Your task to perform on an android device: turn on wifi Image 0: 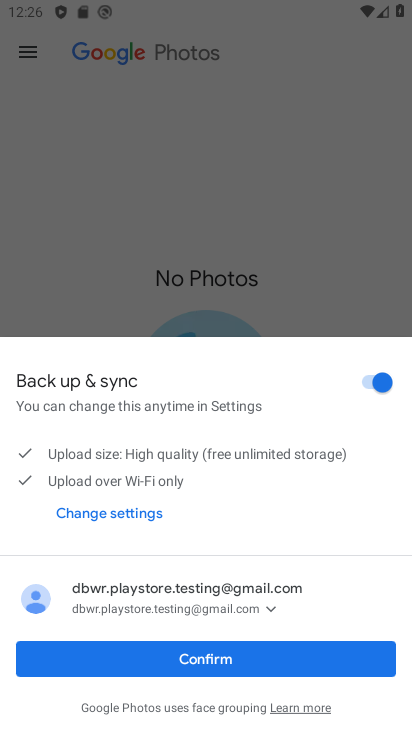
Step 0: click (99, 669)
Your task to perform on an android device: turn on wifi Image 1: 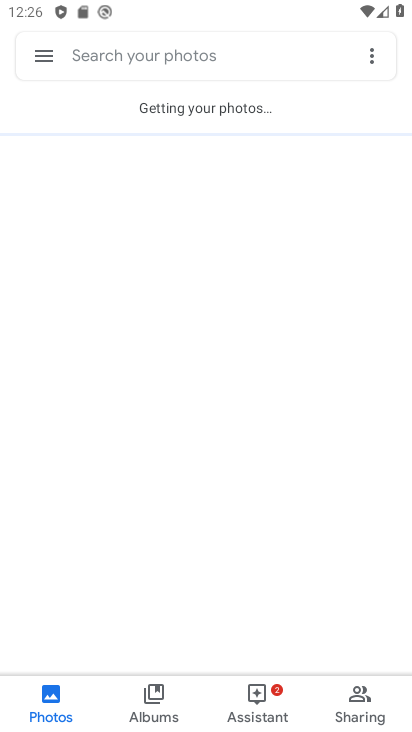
Step 1: press home button
Your task to perform on an android device: turn on wifi Image 2: 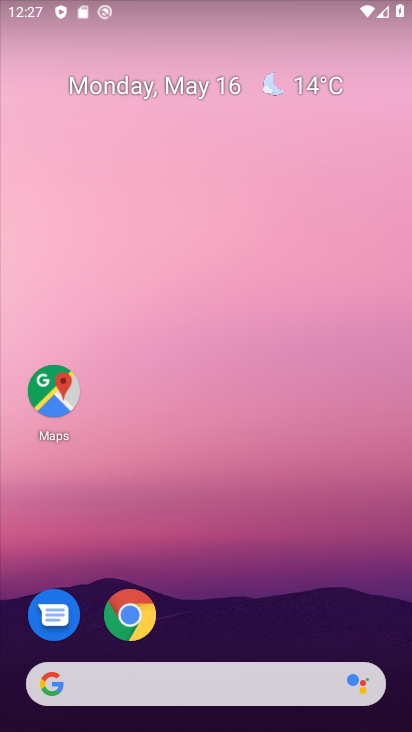
Step 2: drag from (311, 591) to (378, 139)
Your task to perform on an android device: turn on wifi Image 3: 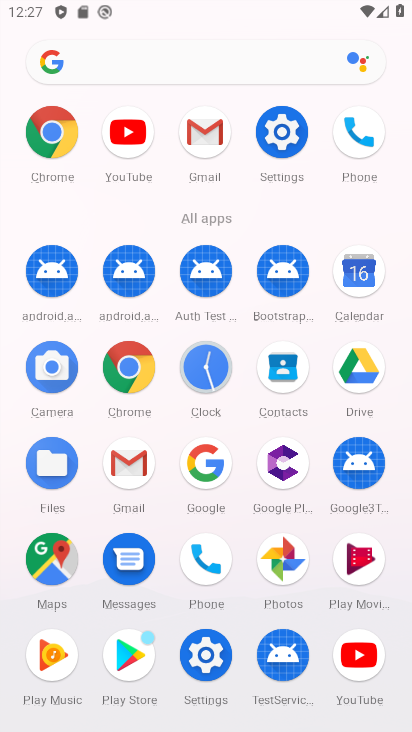
Step 3: click (268, 149)
Your task to perform on an android device: turn on wifi Image 4: 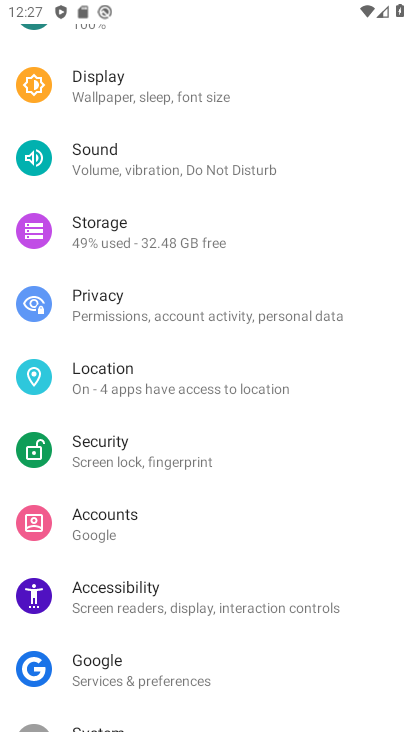
Step 4: drag from (203, 152) to (246, 568)
Your task to perform on an android device: turn on wifi Image 5: 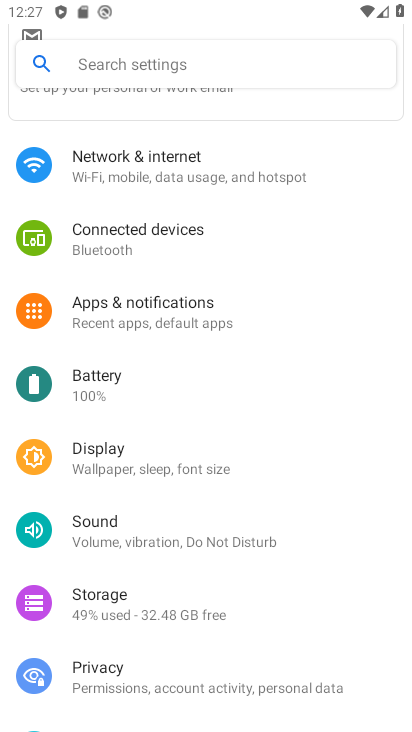
Step 5: click (182, 181)
Your task to perform on an android device: turn on wifi Image 6: 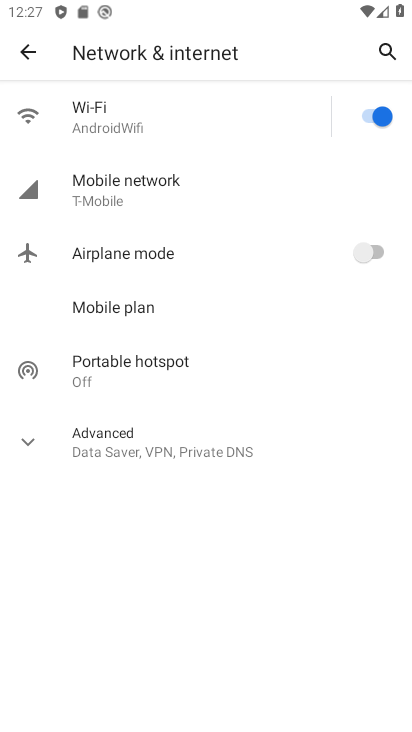
Step 6: task complete